Your task to perform on an android device: stop showing notifications on the lock screen Image 0: 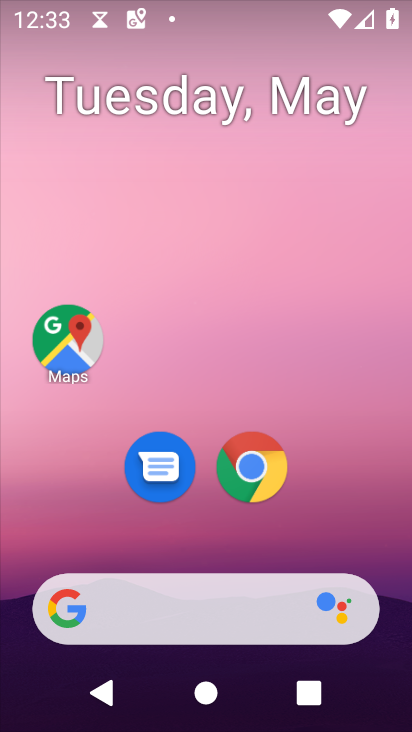
Step 0: drag from (296, 519) to (269, 63)
Your task to perform on an android device: stop showing notifications on the lock screen Image 1: 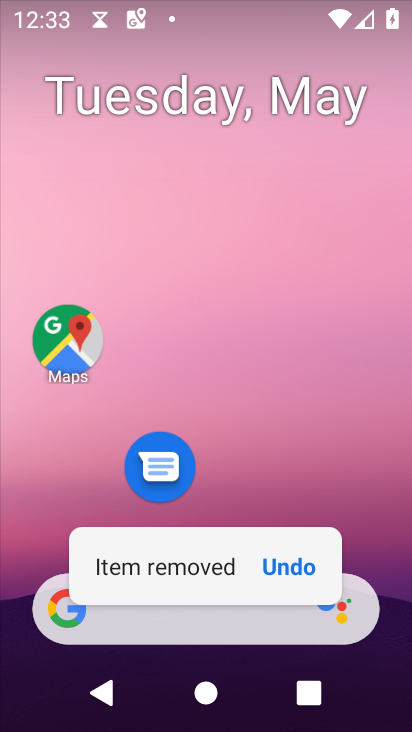
Step 1: drag from (283, 517) to (262, 83)
Your task to perform on an android device: stop showing notifications on the lock screen Image 2: 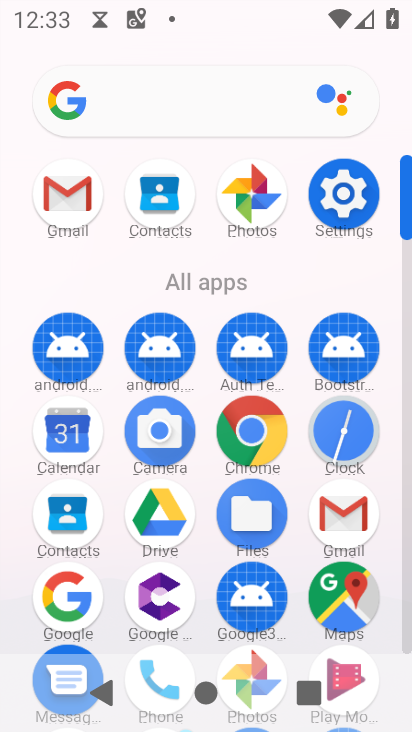
Step 2: click (344, 200)
Your task to perform on an android device: stop showing notifications on the lock screen Image 3: 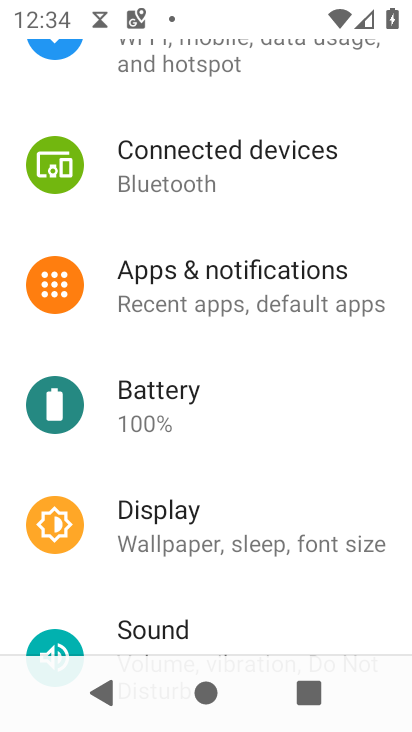
Step 3: click (260, 303)
Your task to perform on an android device: stop showing notifications on the lock screen Image 4: 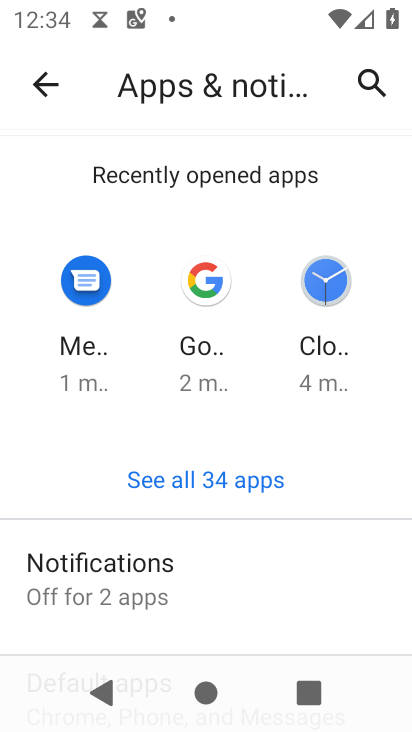
Step 4: click (223, 606)
Your task to perform on an android device: stop showing notifications on the lock screen Image 5: 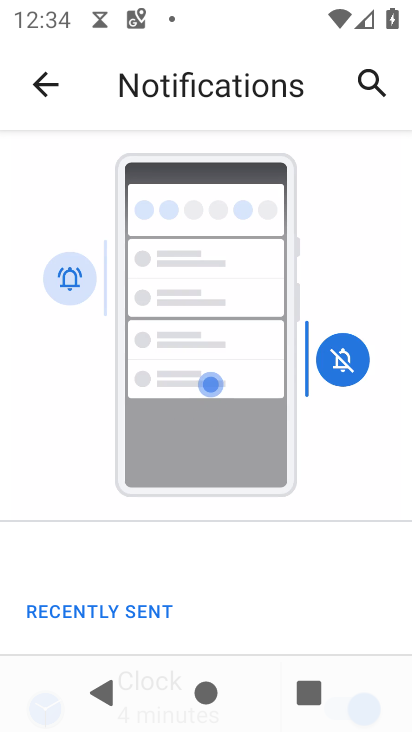
Step 5: drag from (248, 607) to (212, 152)
Your task to perform on an android device: stop showing notifications on the lock screen Image 6: 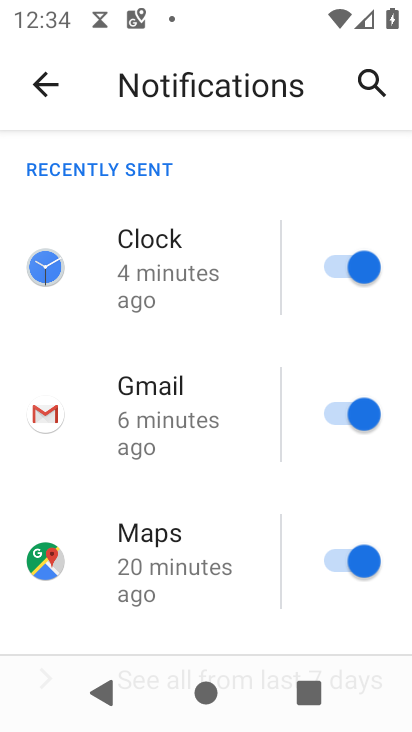
Step 6: drag from (226, 594) to (217, 171)
Your task to perform on an android device: stop showing notifications on the lock screen Image 7: 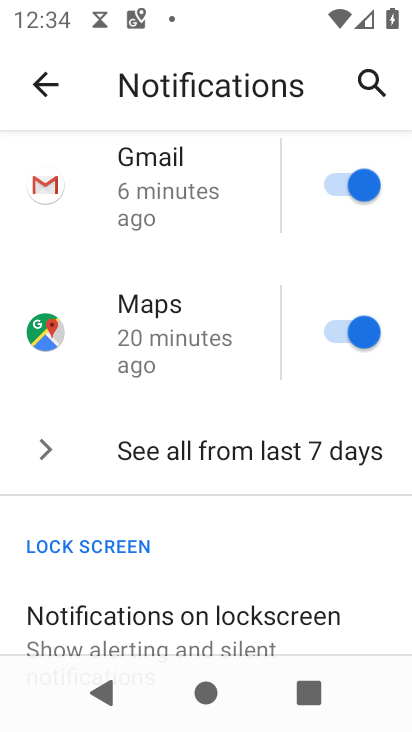
Step 7: drag from (268, 579) to (252, 187)
Your task to perform on an android device: stop showing notifications on the lock screen Image 8: 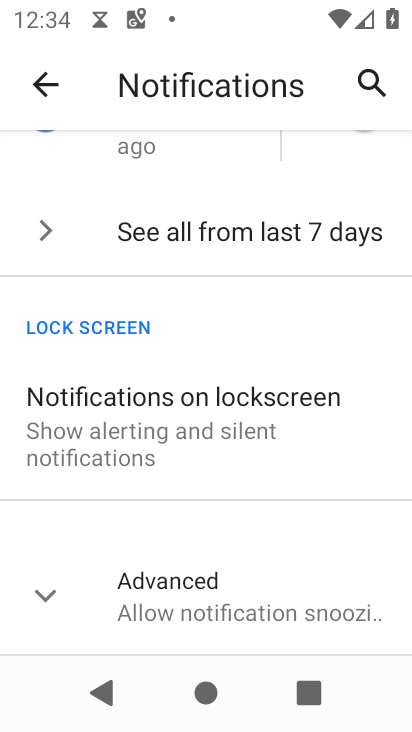
Step 8: click (209, 446)
Your task to perform on an android device: stop showing notifications on the lock screen Image 9: 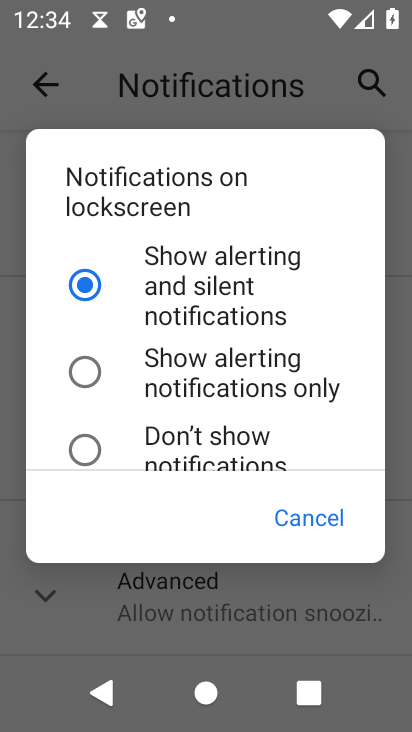
Step 9: click (91, 445)
Your task to perform on an android device: stop showing notifications on the lock screen Image 10: 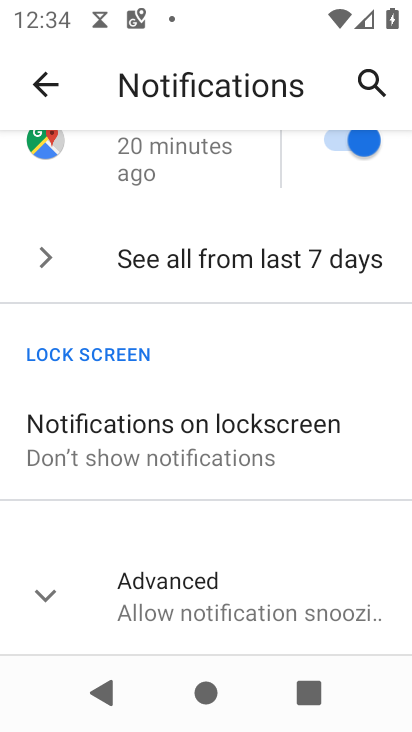
Step 10: task complete